Your task to perform on an android device: turn notification dots on Image 0: 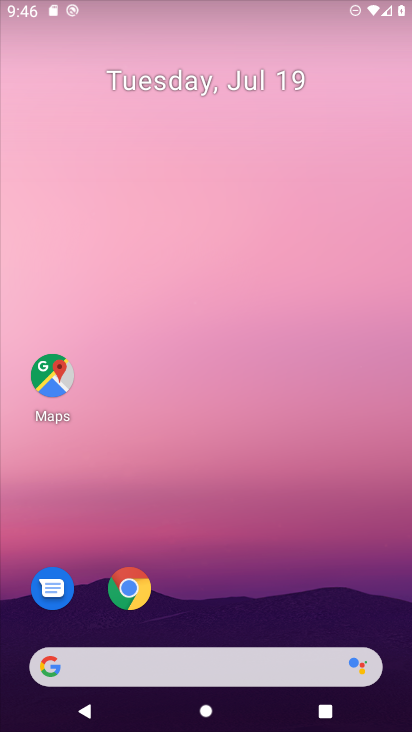
Step 0: click (58, 363)
Your task to perform on an android device: turn notification dots on Image 1: 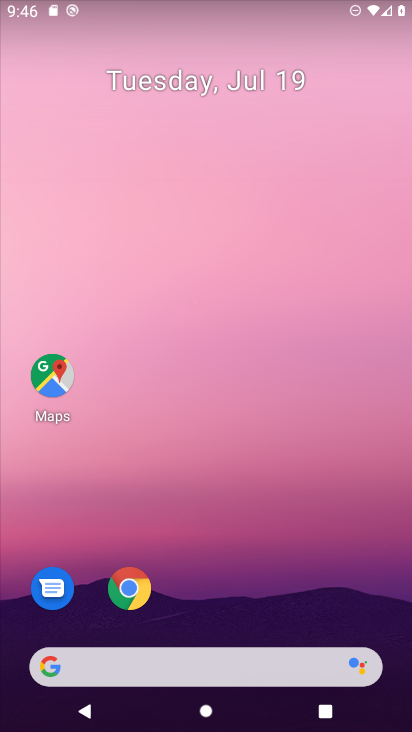
Step 1: click (63, 367)
Your task to perform on an android device: turn notification dots on Image 2: 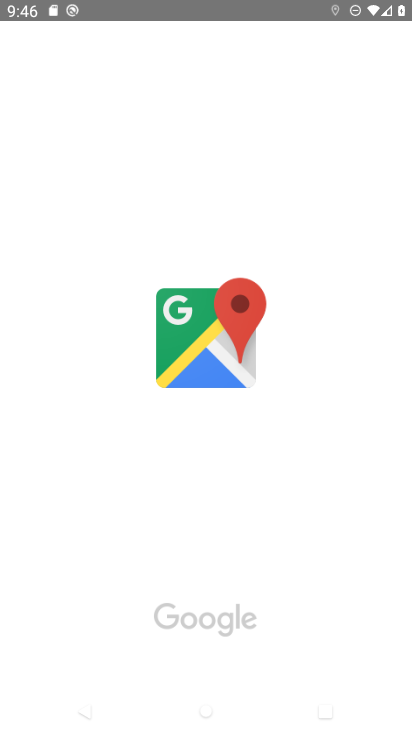
Step 2: click (74, 362)
Your task to perform on an android device: turn notification dots on Image 3: 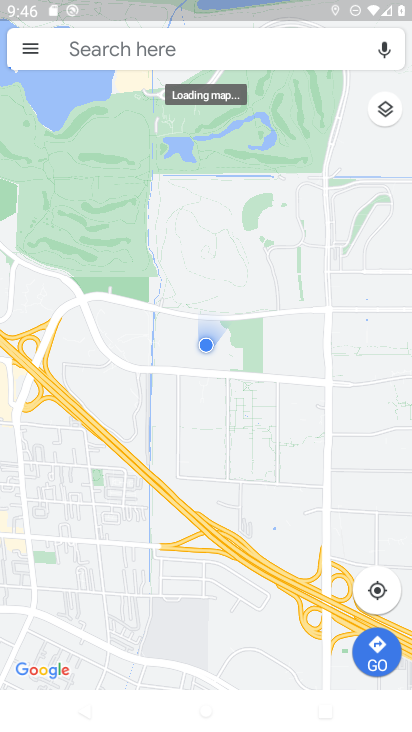
Step 3: press back button
Your task to perform on an android device: turn notification dots on Image 4: 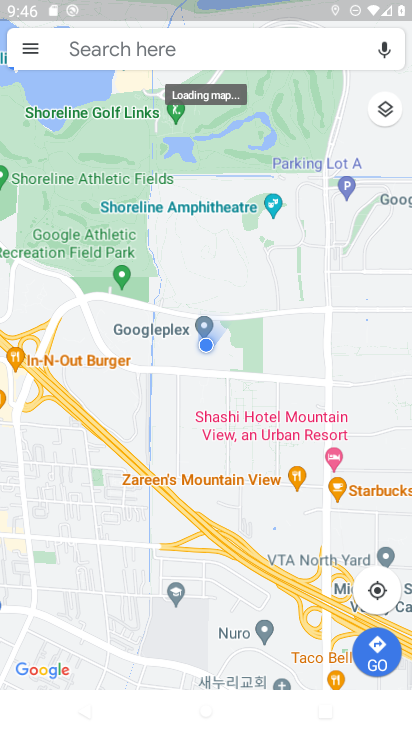
Step 4: press back button
Your task to perform on an android device: turn notification dots on Image 5: 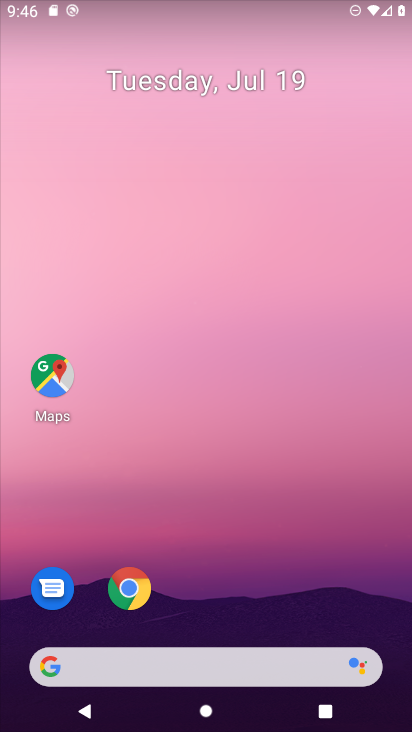
Step 5: drag from (206, 601) to (175, 210)
Your task to perform on an android device: turn notification dots on Image 6: 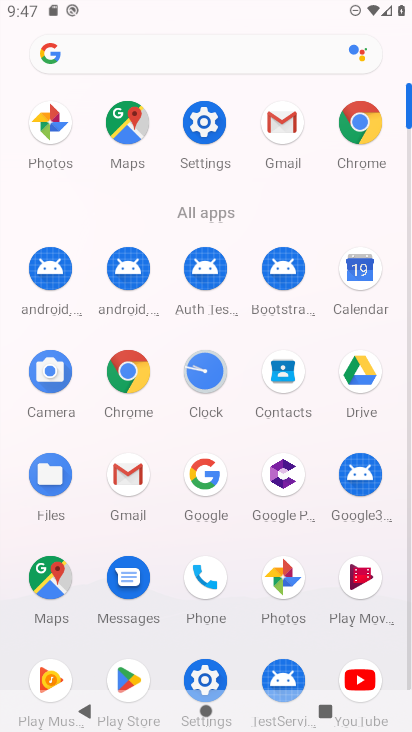
Step 6: click (196, 112)
Your task to perform on an android device: turn notification dots on Image 7: 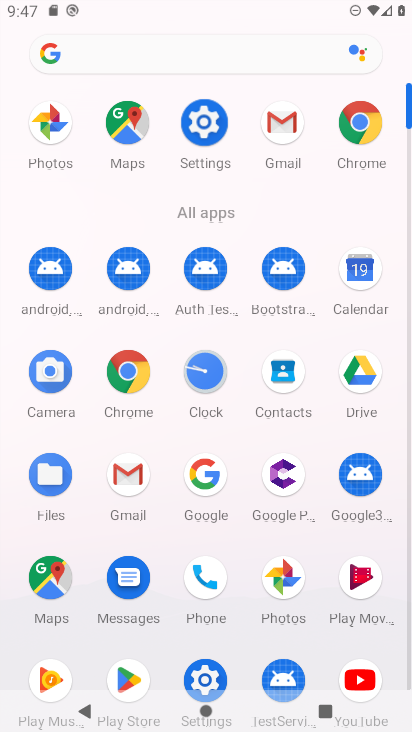
Step 7: click (198, 112)
Your task to perform on an android device: turn notification dots on Image 8: 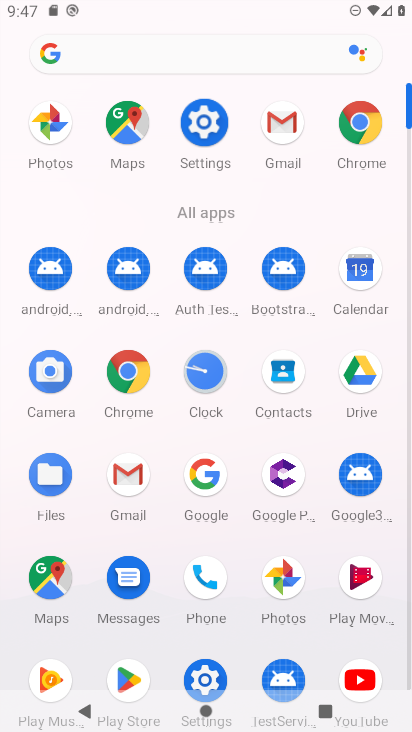
Step 8: click (199, 112)
Your task to perform on an android device: turn notification dots on Image 9: 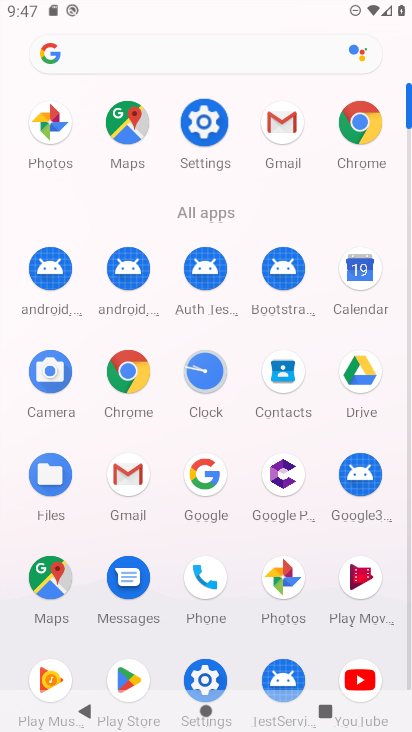
Step 9: click (199, 112)
Your task to perform on an android device: turn notification dots on Image 10: 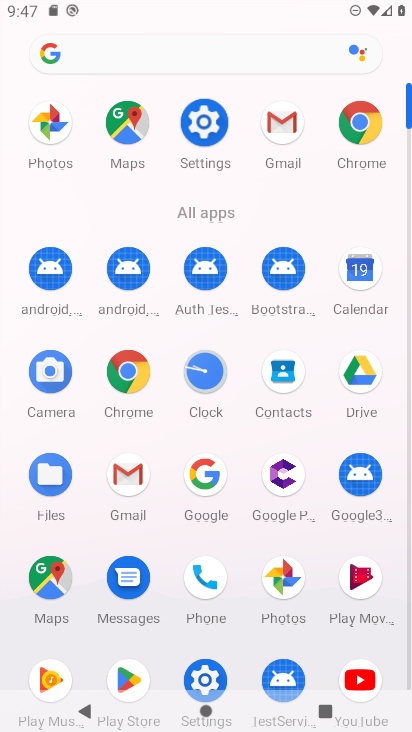
Step 10: click (200, 113)
Your task to perform on an android device: turn notification dots on Image 11: 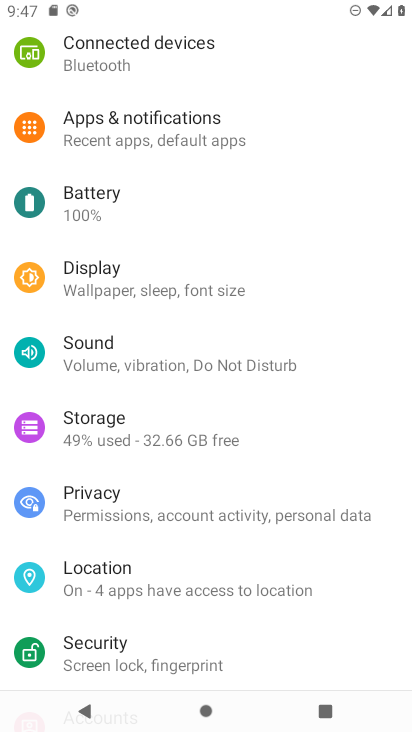
Step 11: click (200, 113)
Your task to perform on an android device: turn notification dots on Image 12: 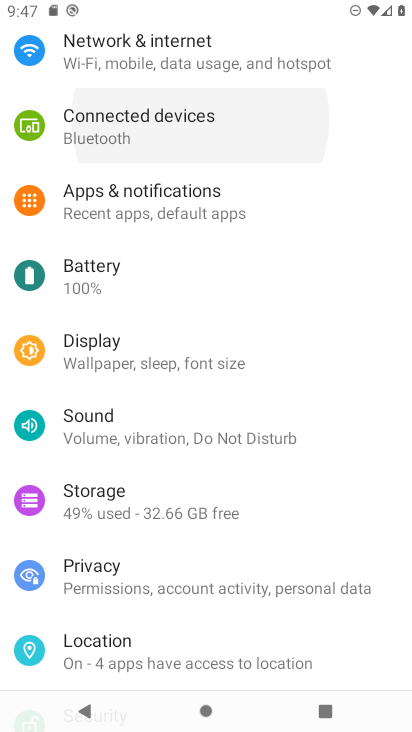
Step 12: click (200, 115)
Your task to perform on an android device: turn notification dots on Image 13: 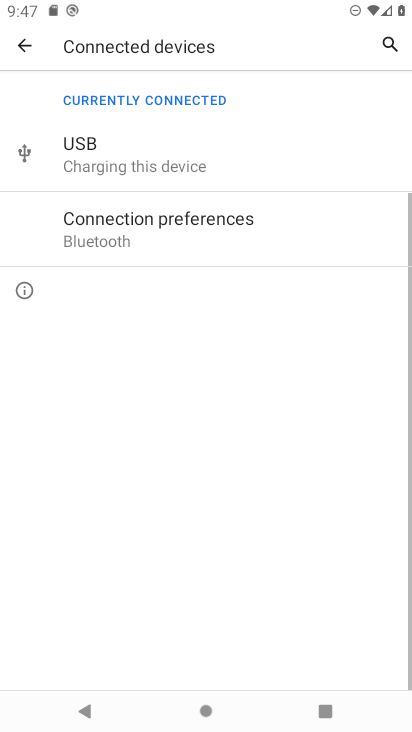
Step 13: click (25, 47)
Your task to perform on an android device: turn notification dots on Image 14: 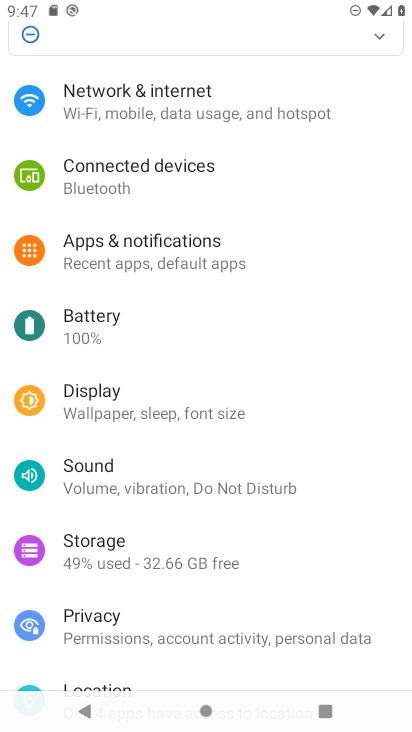
Step 14: click (135, 241)
Your task to perform on an android device: turn notification dots on Image 15: 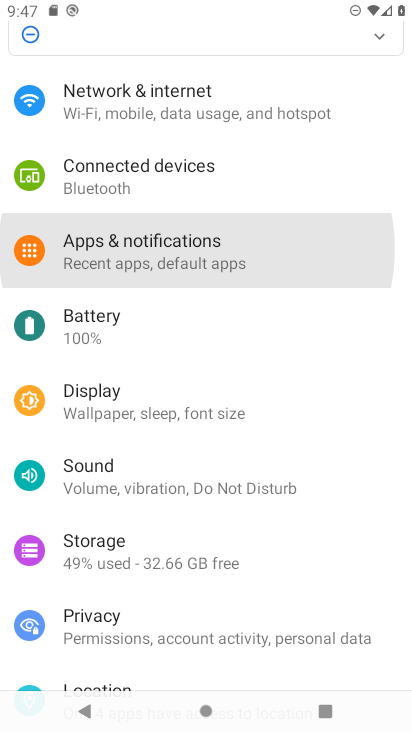
Step 15: click (137, 241)
Your task to perform on an android device: turn notification dots on Image 16: 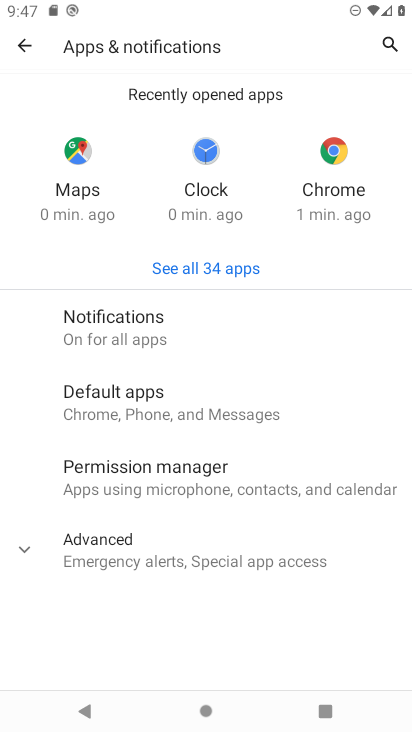
Step 16: click (130, 327)
Your task to perform on an android device: turn notification dots on Image 17: 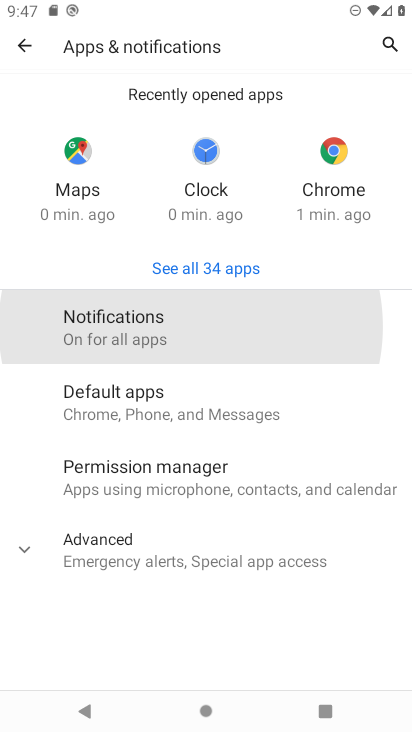
Step 17: click (130, 327)
Your task to perform on an android device: turn notification dots on Image 18: 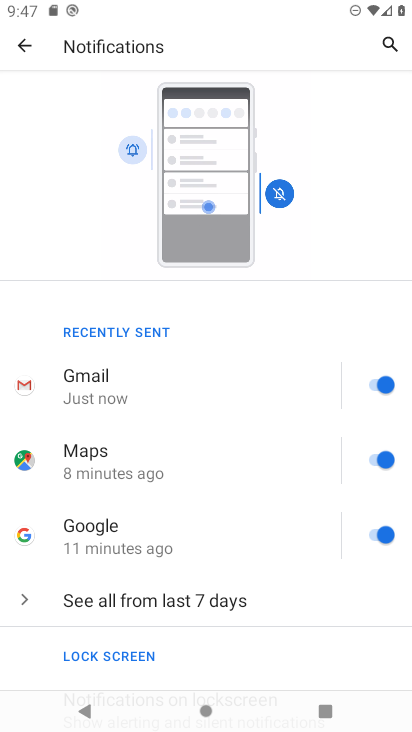
Step 18: drag from (200, 578) to (195, 337)
Your task to perform on an android device: turn notification dots on Image 19: 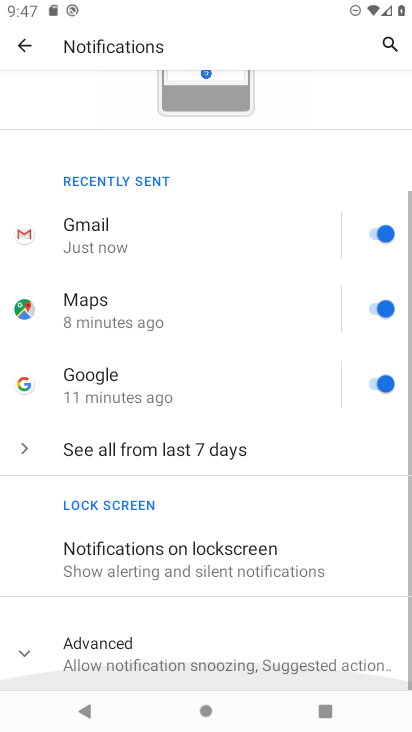
Step 19: drag from (161, 478) to (175, 250)
Your task to perform on an android device: turn notification dots on Image 20: 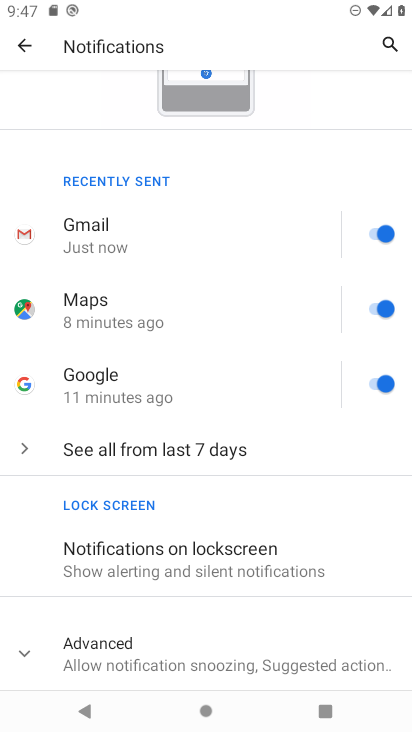
Step 20: drag from (210, 474) to (210, 336)
Your task to perform on an android device: turn notification dots on Image 21: 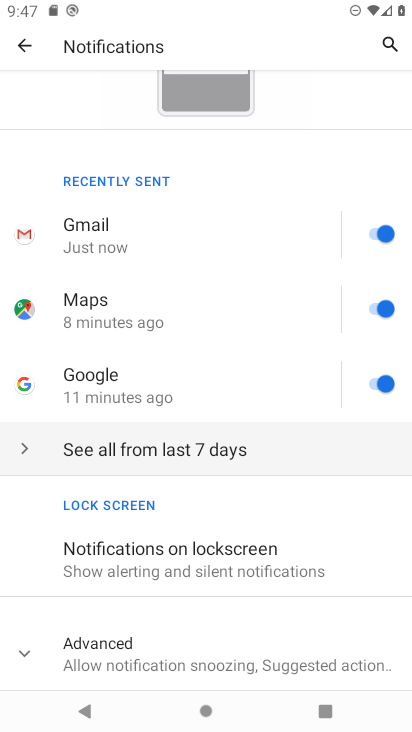
Step 21: drag from (190, 532) to (211, 325)
Your task to perform on an android device: turn notification dots on Image 22: 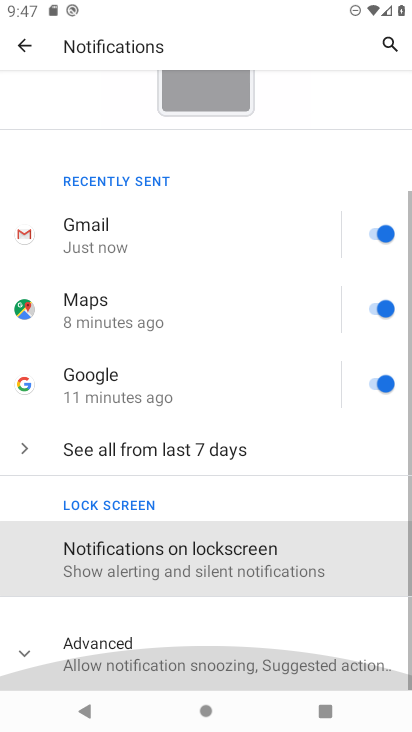
Step 22: drag from (217, 558) to (230, 414)
Your task to perform on an android device: turn notification dots on Image 23: 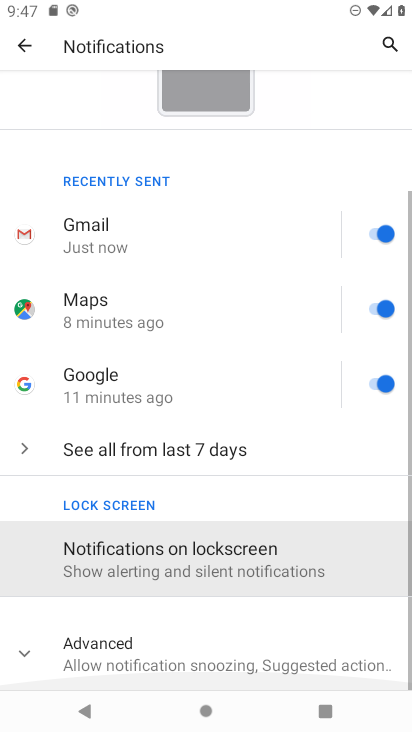
Step 23: drag from (220, 578) to (230, 393)
Your task to perform on an android device: turn notification dots on Image 24: 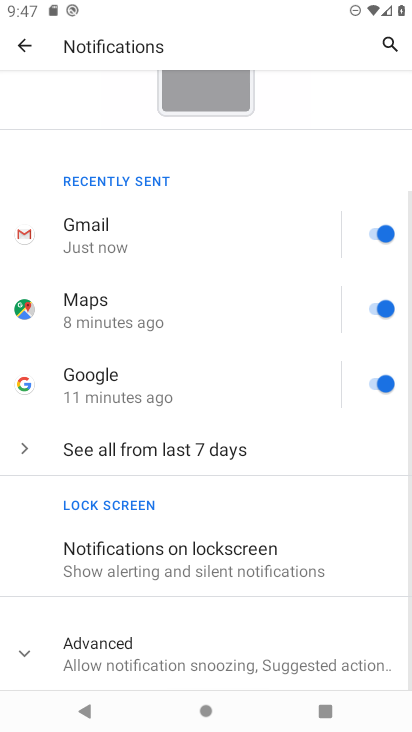
Step 24: click (104, 659)
Your task to perform on an android device: turn notification dots on Image 25: 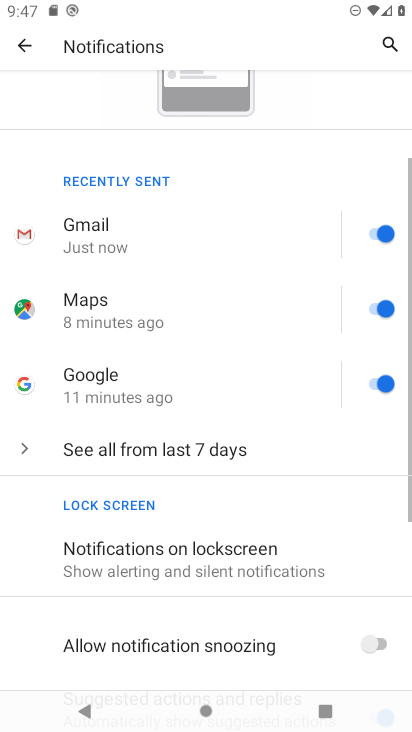
Step 25: drag from (255, 571) to (247, 367)
Your task to perform on an android device: turn notification dots on Image 26: 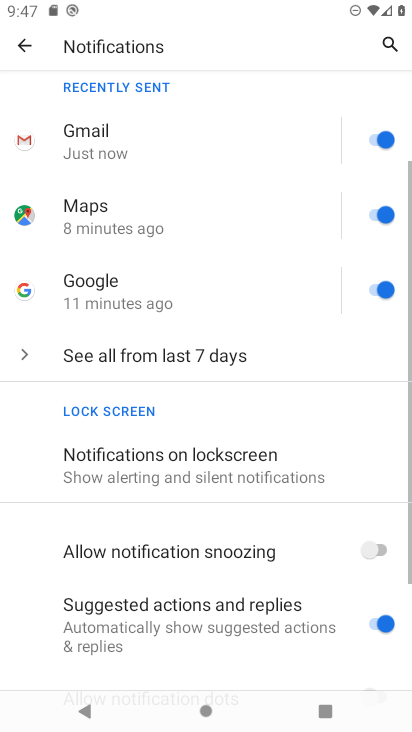
Step 26: drag from (269, 515) to (254, 284)
Your task to perform on an android device: turn notification dots on Image 27: 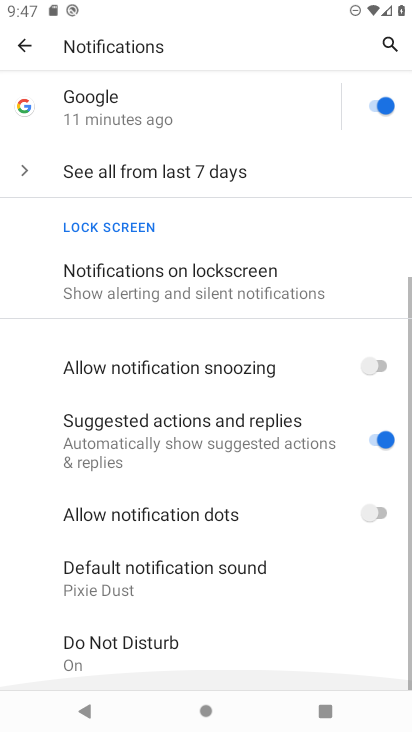
Step 27: drag from (253, 462) to (255, 263)
Your task to perform on an android device: turn notification dots on Image 28: 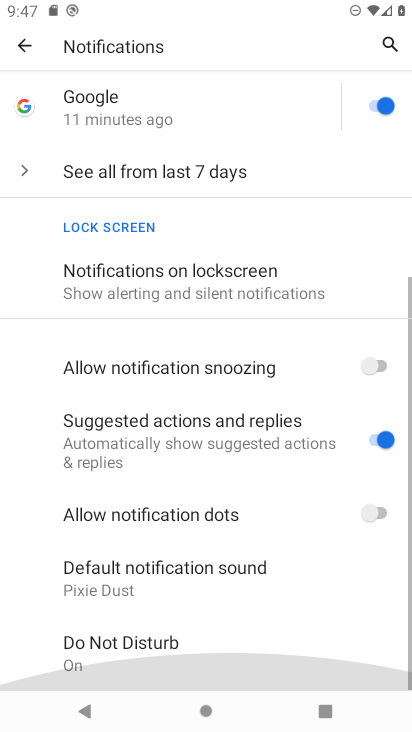
Step 28: drag from (246, 507) to (246, 262)
Your task to perform on an android device: turn notification dots on Image 29: 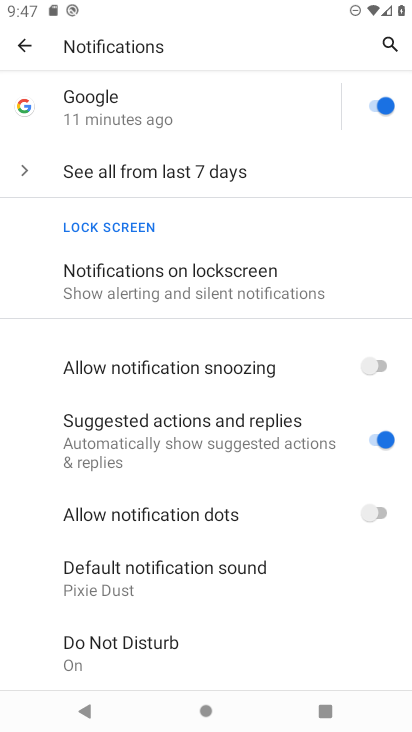
Step 29: click (374, 519)
Your task to perform on an android device: turn notification dots on Image 30: 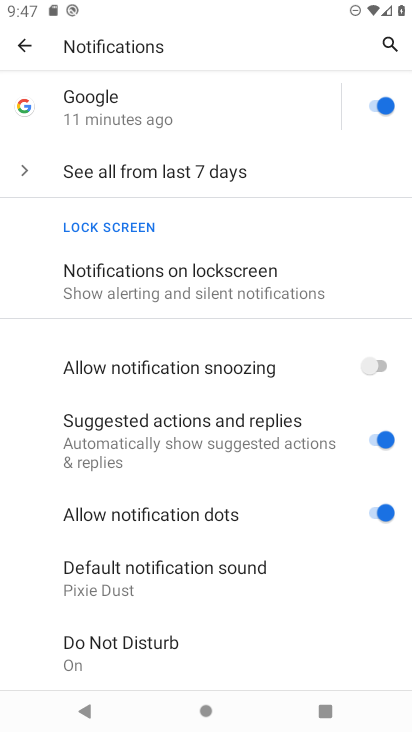
Step 30: task complete